Your task to perform on an android device: set the stopwatch Image 0: 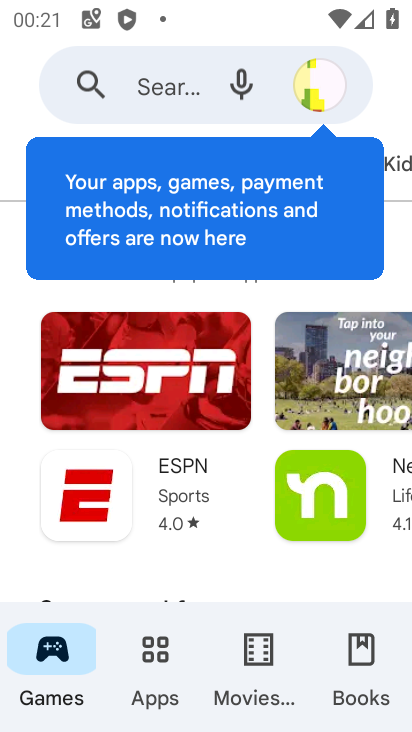
Step 0: press home button
Your task to perform on an android device: set the stopwatch Image 1: 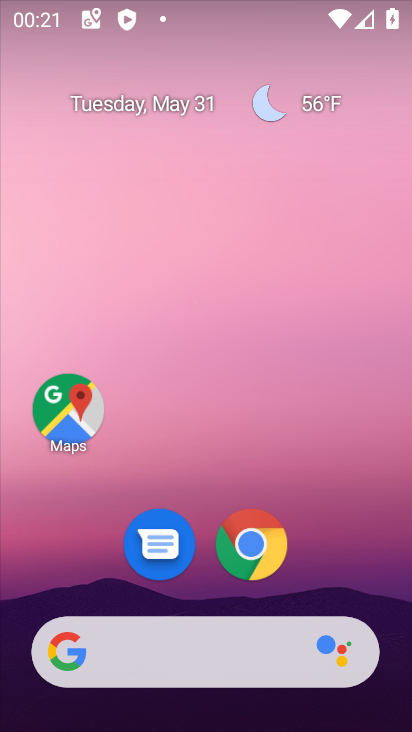
Step 1: drag from (309, 486) to (112, 6)
Your task to perform on an android device: set the stopwatch Image 2: 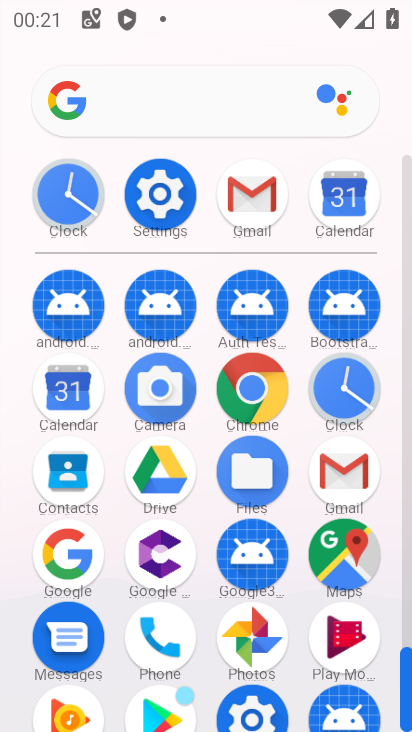
Step 2: click (336, 381)
Your task to perform on an android device: set the stopwatch Image 3: 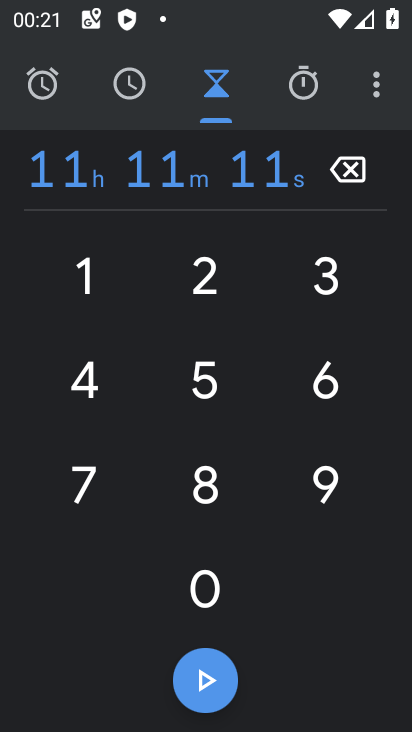
Step 3: click (300, 83)
Your task to perform on an android device: set the stopwatch Image 4: 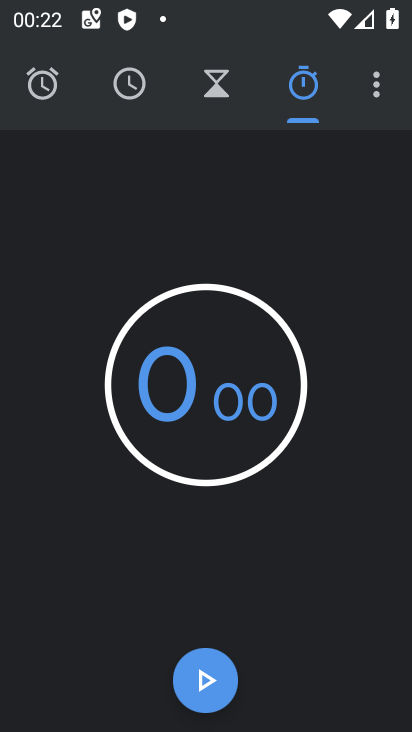
Step 4: task complete